Your task to perform on an android device: Search for vegetarian restaurants on Maps Image 0: 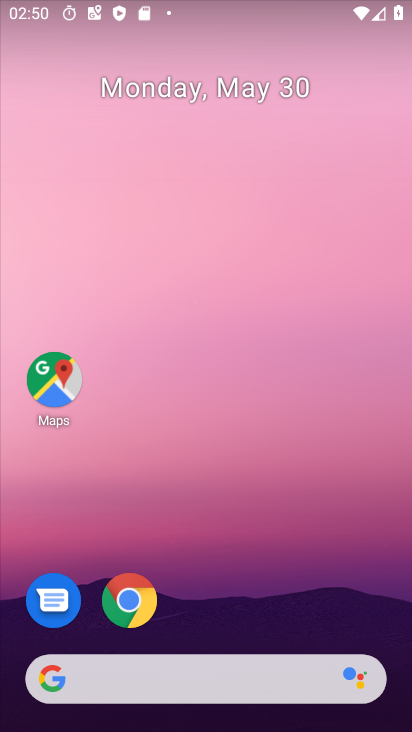
Step 0: click (60, 385)
Your task to perform on an android device: Search for vegetarian restaurants on Maps Image 1: 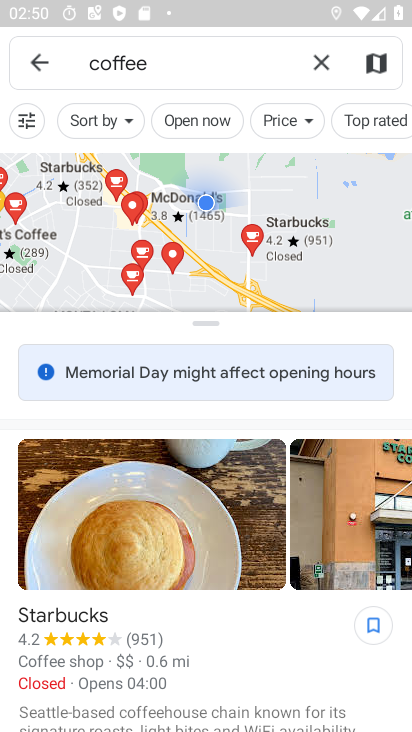
Step 1: click (321, 59)
Your task to perform on an android device: Search for vegetarian restaurants on Maps Image 2: 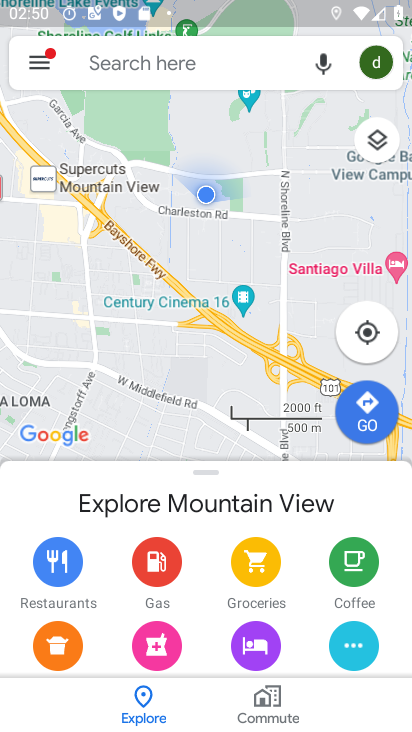
Step 2: click (174, 61)
Your task to perform on an android device: Search for vegetarian restaurants on Maps Image 3: 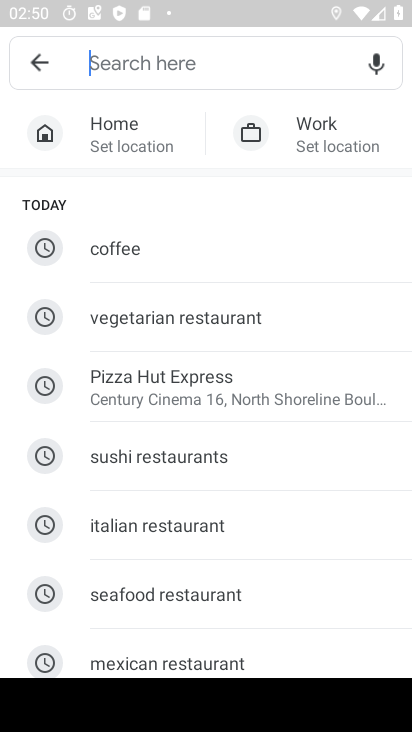
Step 3: click (249, 321)
Your task to perform on an android device: Search for vegetarian restaurants on Maps Image 4: 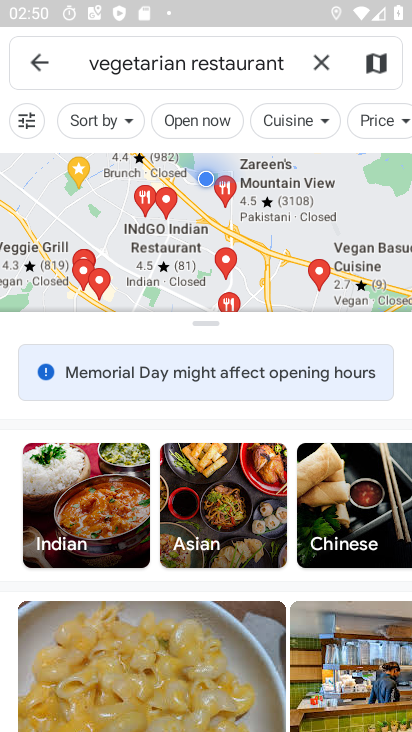
Step 4: task complete